Your task to perform on an android device: Open display settings Image 0: 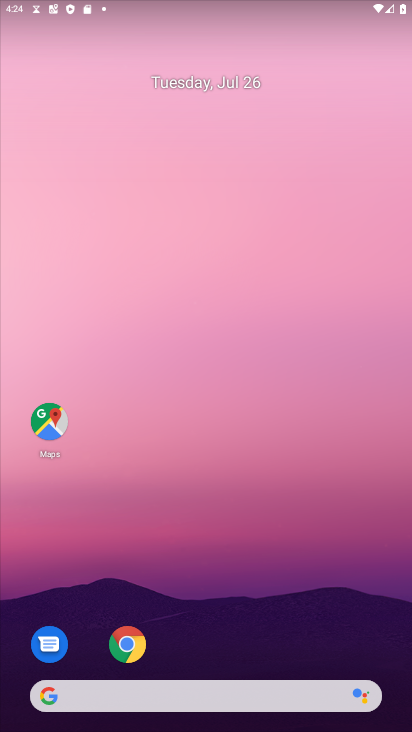
Step 0: drag from (250, 640) to (173, 34)
Your task to perform on an android device: Open display settings Image 1: 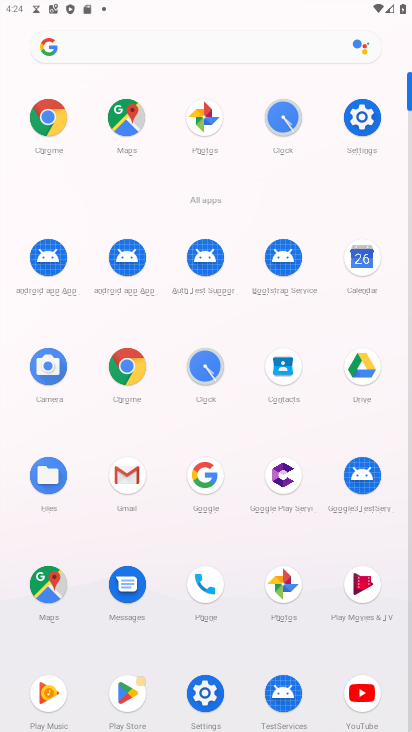
Step 1: click (369, 132)
Your task to perform on an android device: Open display settings Image 2: 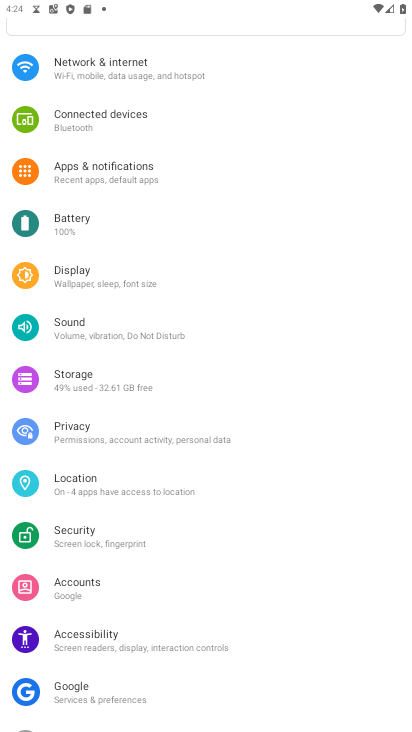
Step 2: click (217, 279)
Your task to perform on an android device: Open display settings Image 3: 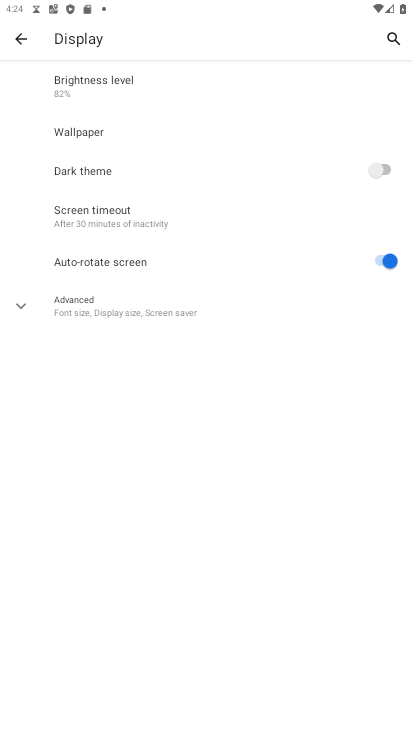
Step 3: task complete